Your task to perform on an android device: Open sound settings Image 0: 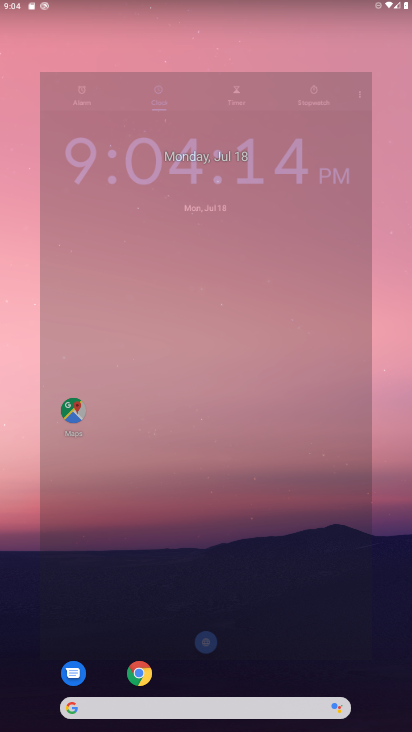
Step 0: press home button
Your task to perform on an android device: Open sound settings Image 1: 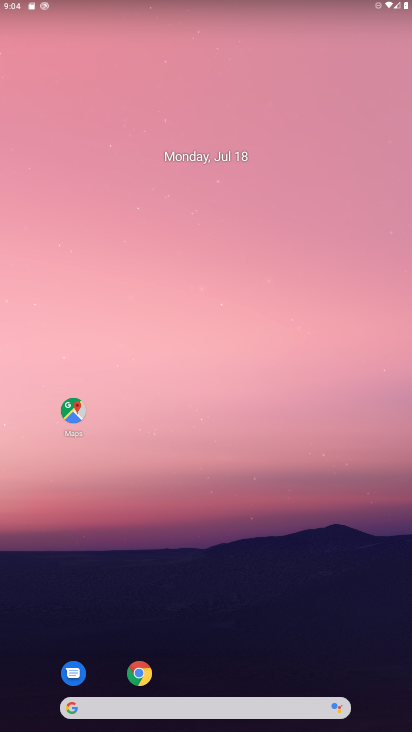
Step 1: drag from (230, 636) to (183, 152)
Your task to perform on an android device: Open sound settings Image 2: 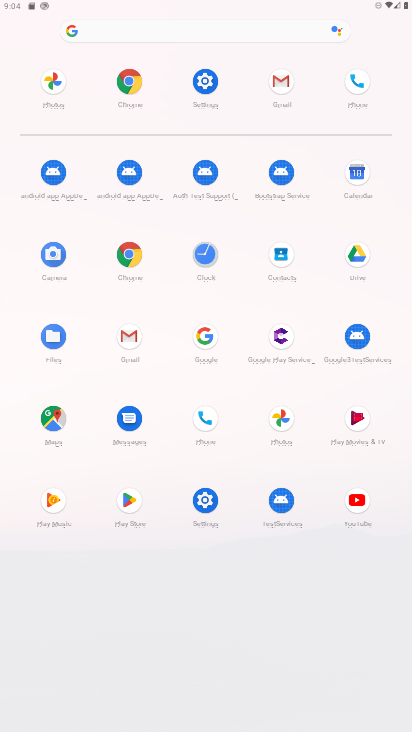
Step 2: click (206, 79)
Your task to perform on an android device: Open sound settings Image 3: 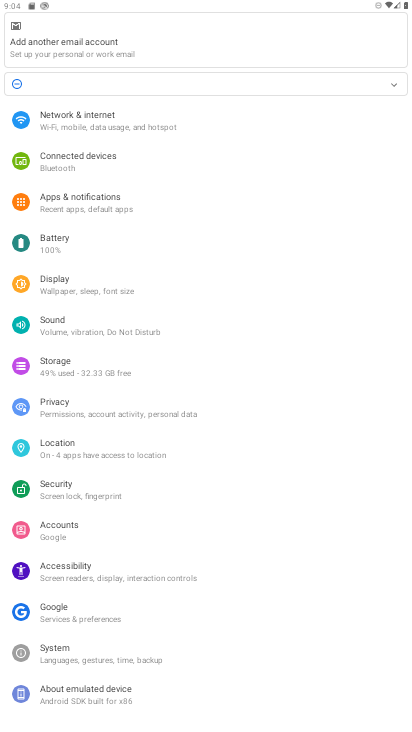
Step 3: click (48, 331)
Your task to perform on an android device: Open sound settings Image 4: 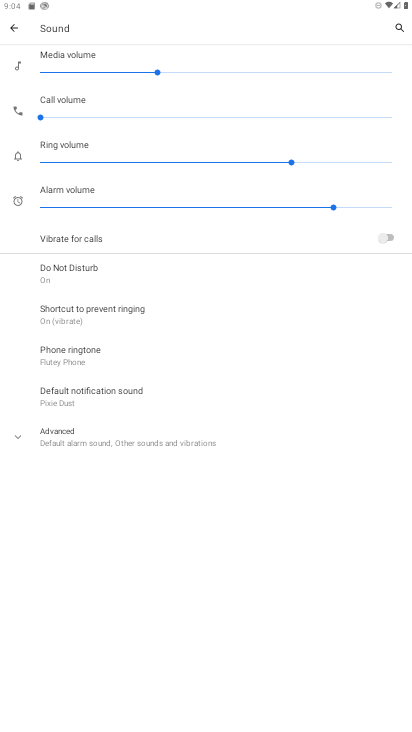
Step 4: task complete